Your task to perform on an android device: set the stopwatch Image 0: 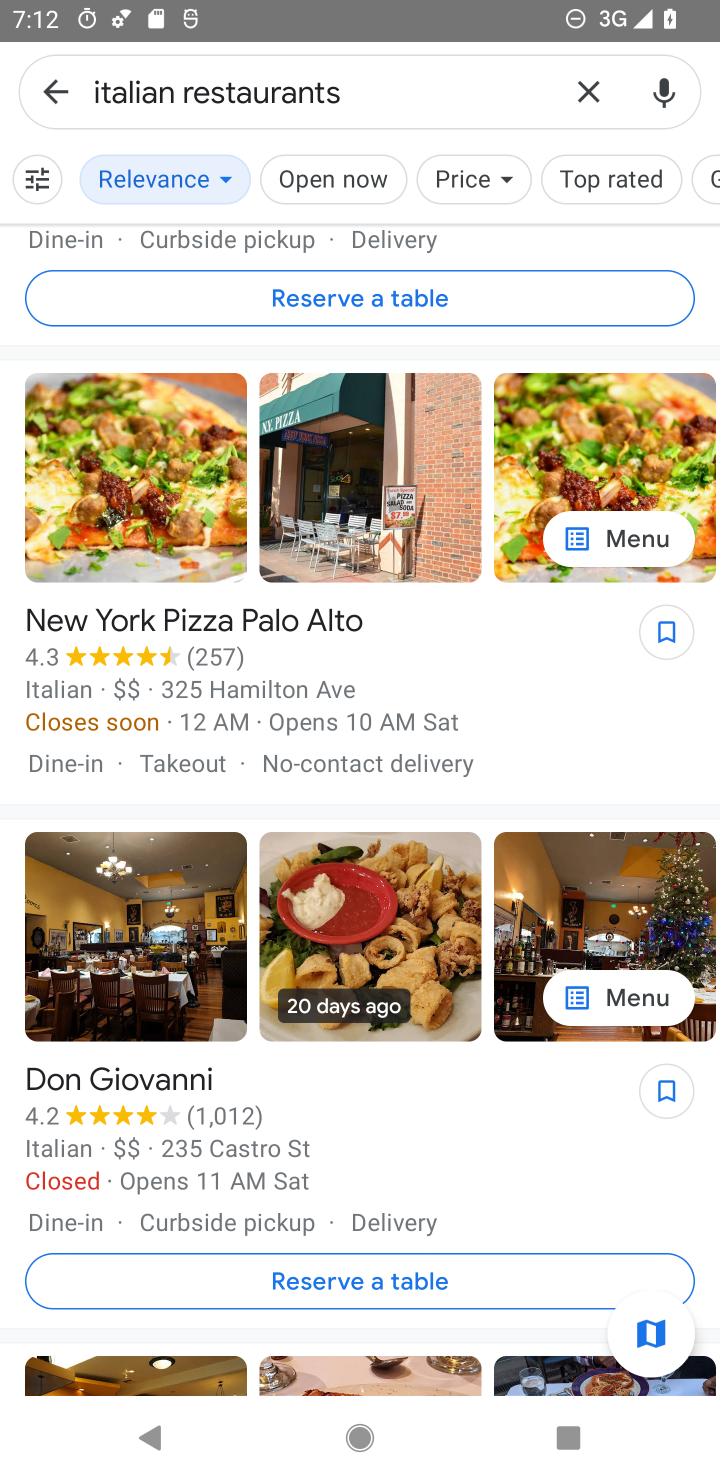
Step 0: drag from (327, 1153) to (482, 279)
Your task to perform on an android device: set the stopwatch Image 1: 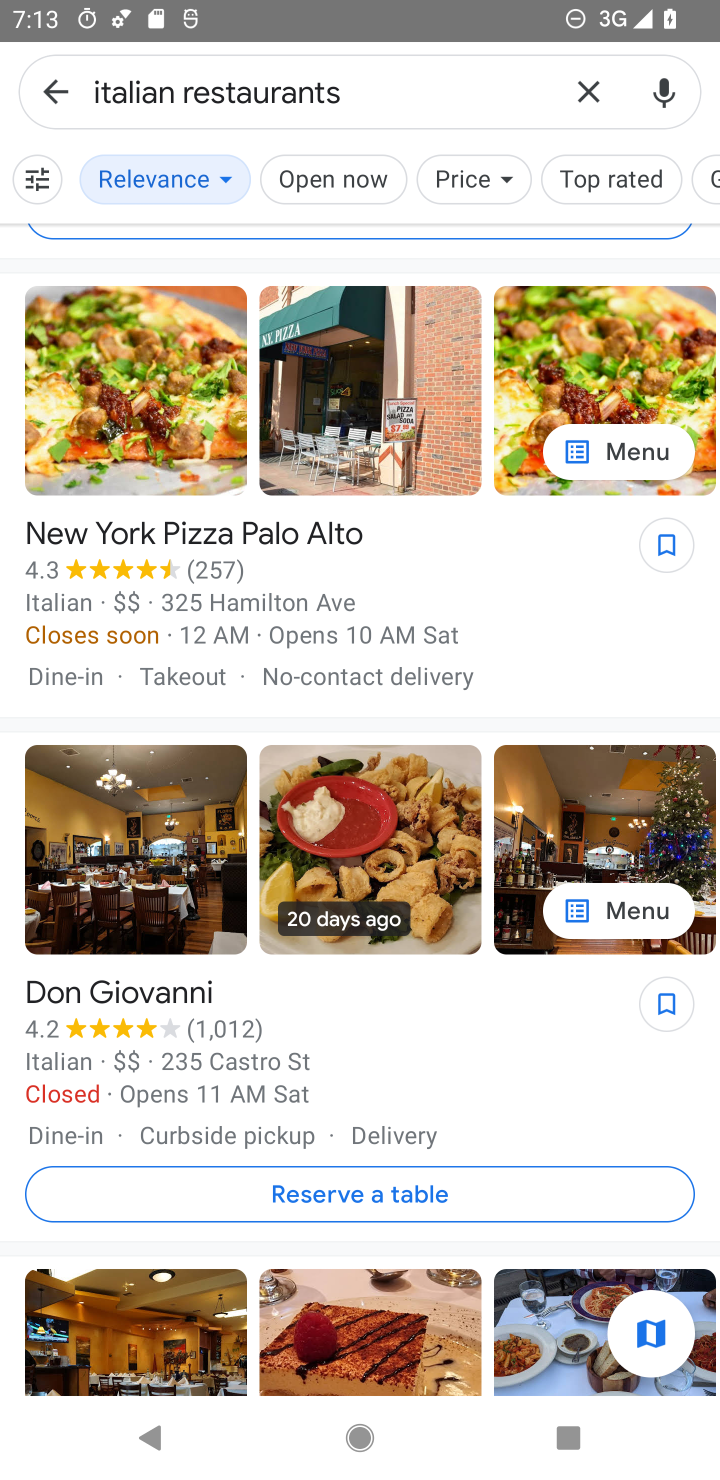
Step 1: drag from (383, 1028) to (363, 1479)
Your task to perform on an android device: set the stopwatch Image 2: 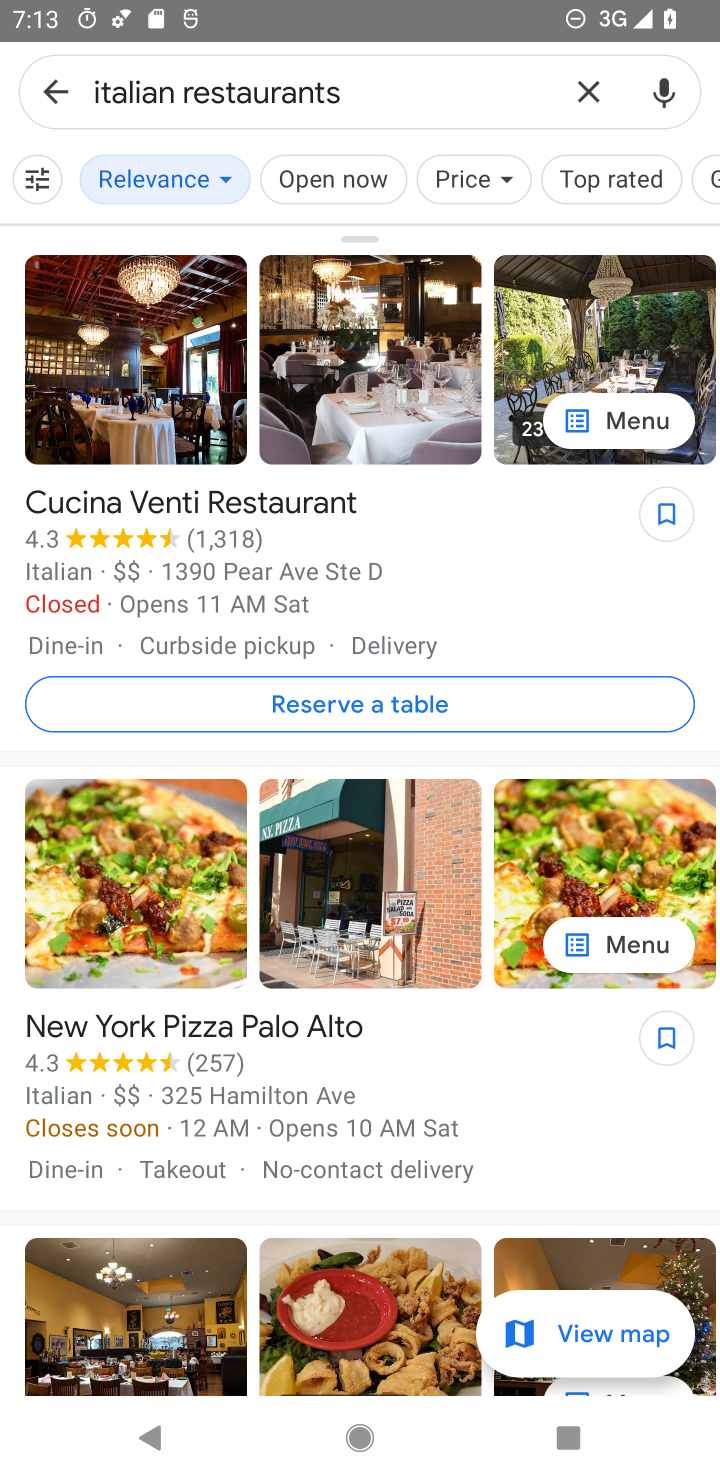
Step 2: press home button
Your task to perform on an android device: set the stopwatch Image 3: 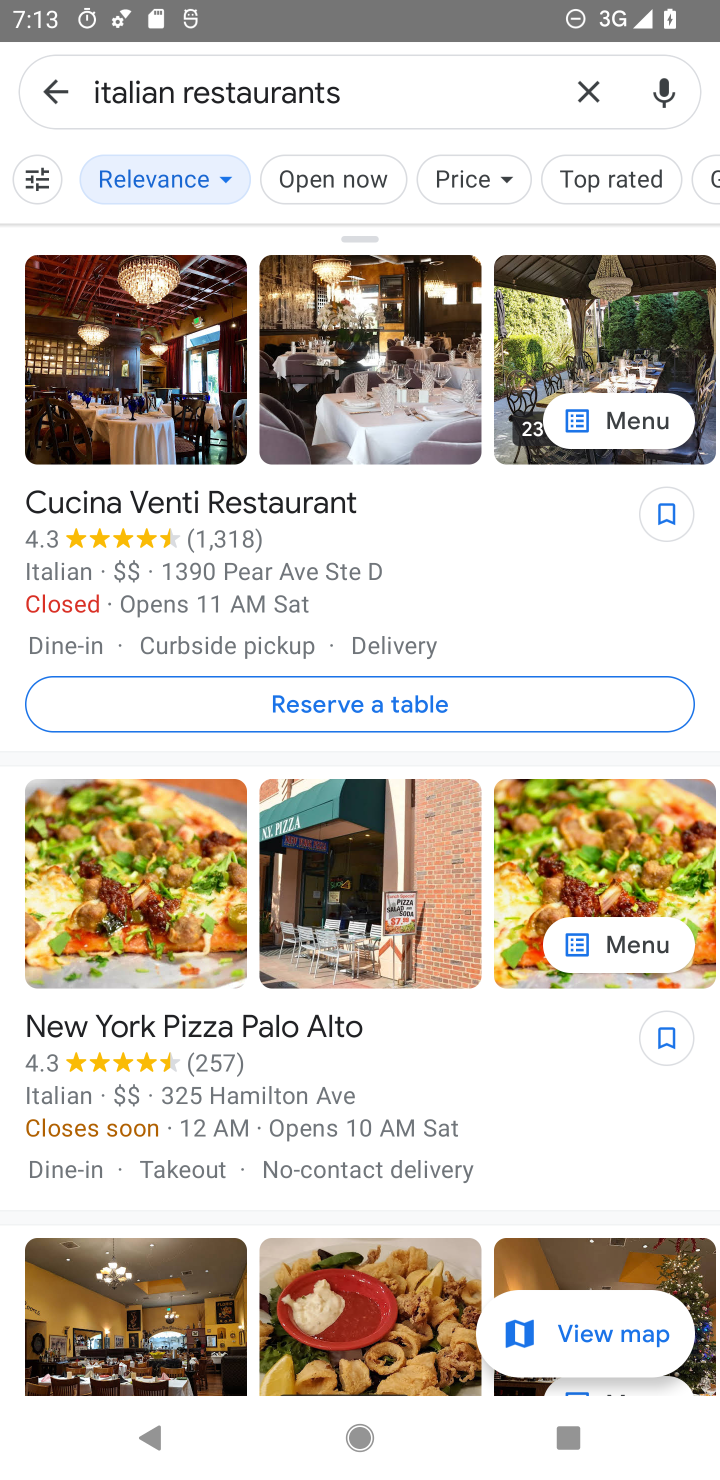
Step 3: drag from (380, 1164) to (394, 136)
Your task to perform on an android device: set the stopwatch Image 4: 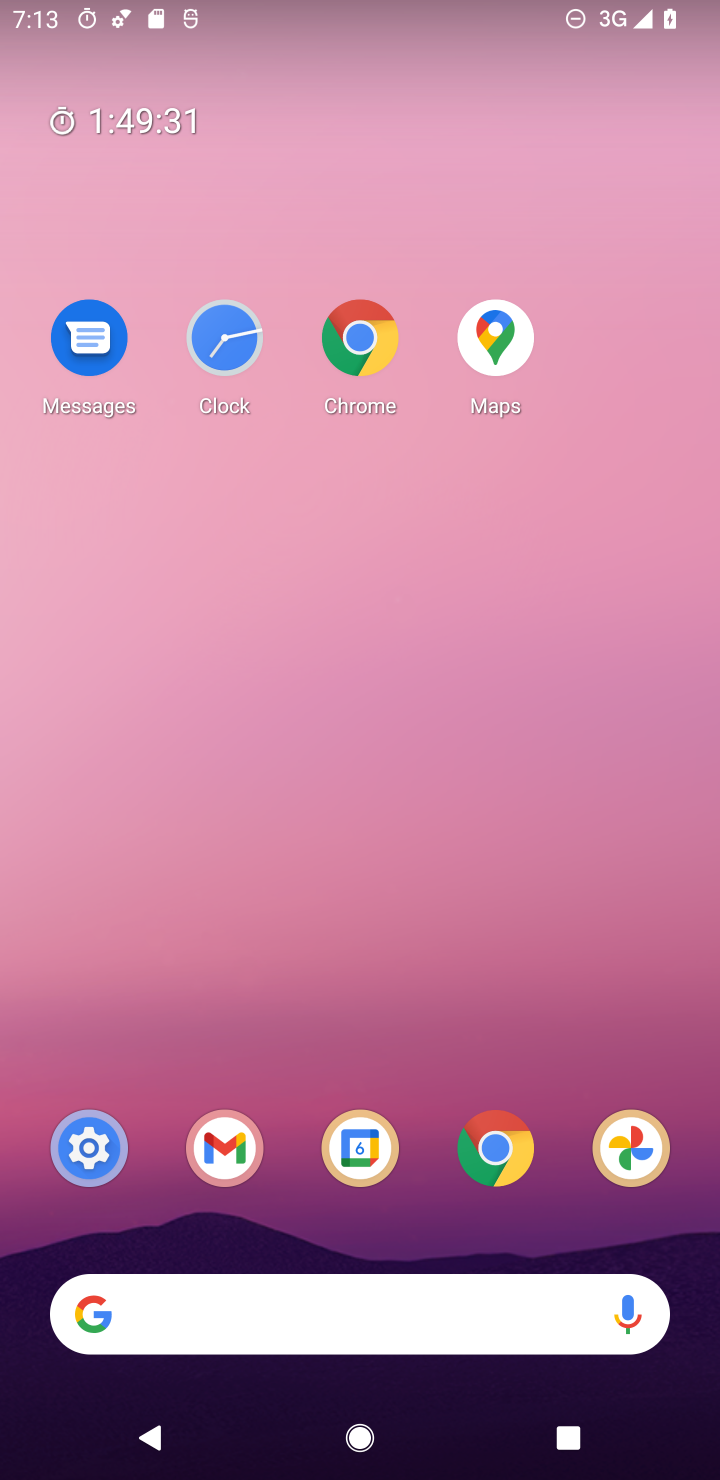
Step 4: drag from (367, 852) to (367, 435)
Your task to perform on an android device: set the stopwatch Image 5: 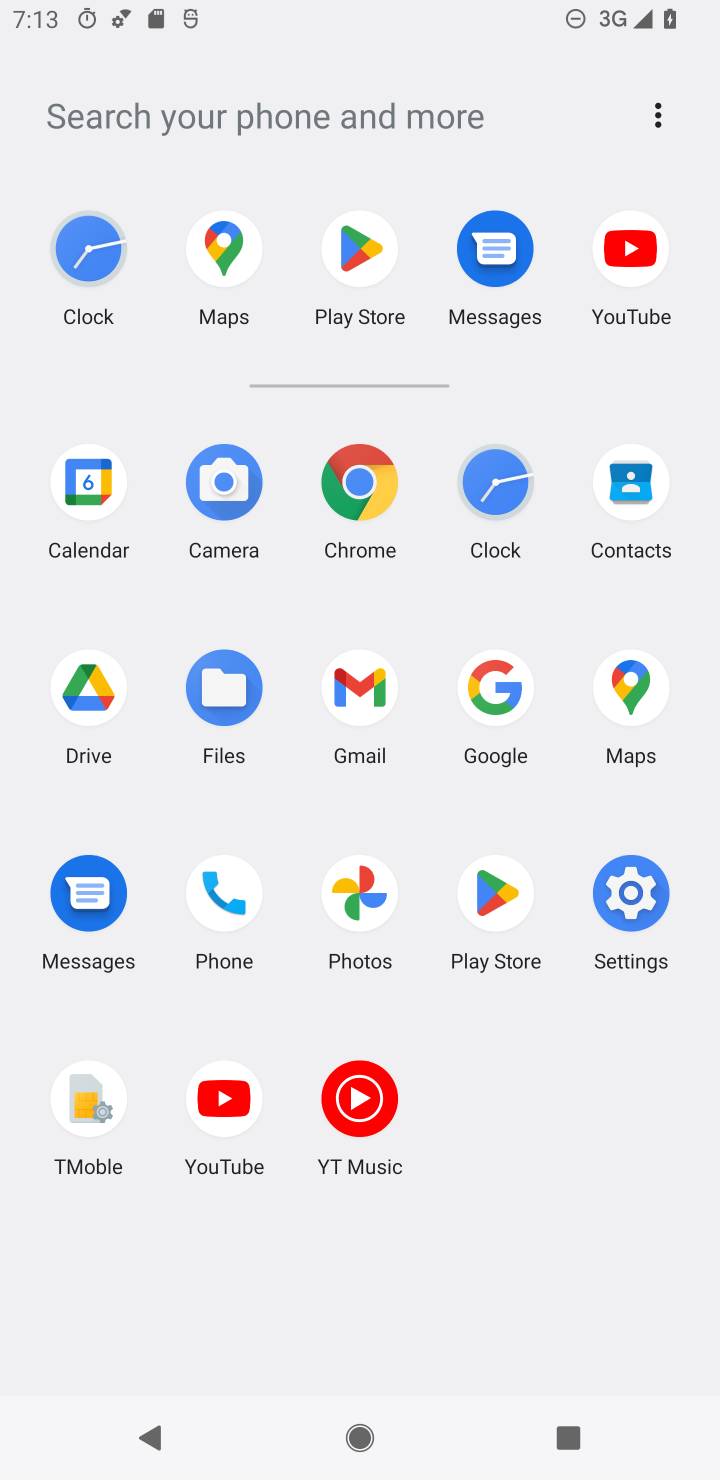
Step 5: click (471, 441)
Your task to perform on an android device: set the stopwatch Image 6: 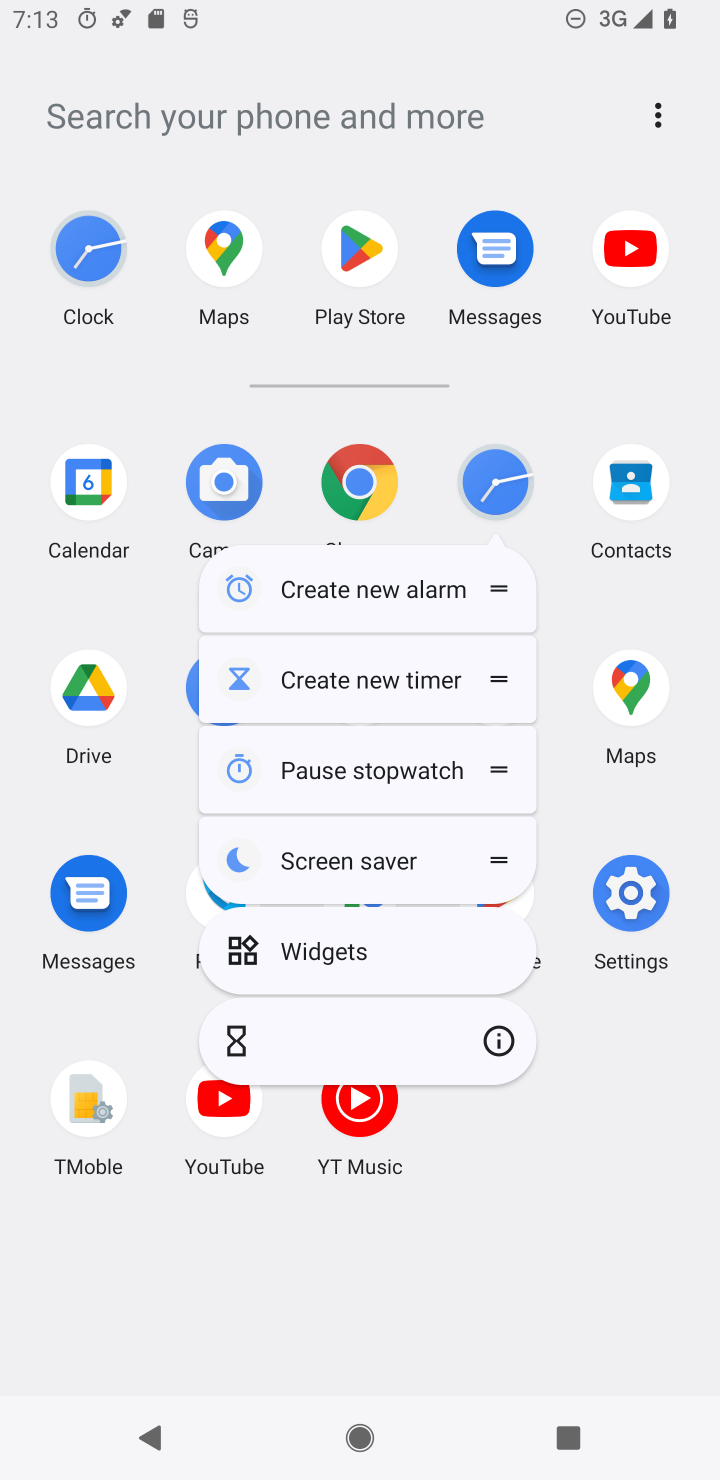
Step 6: click (482, 1042)
Your task to perform on an android device: set the stopwatch Image 7: 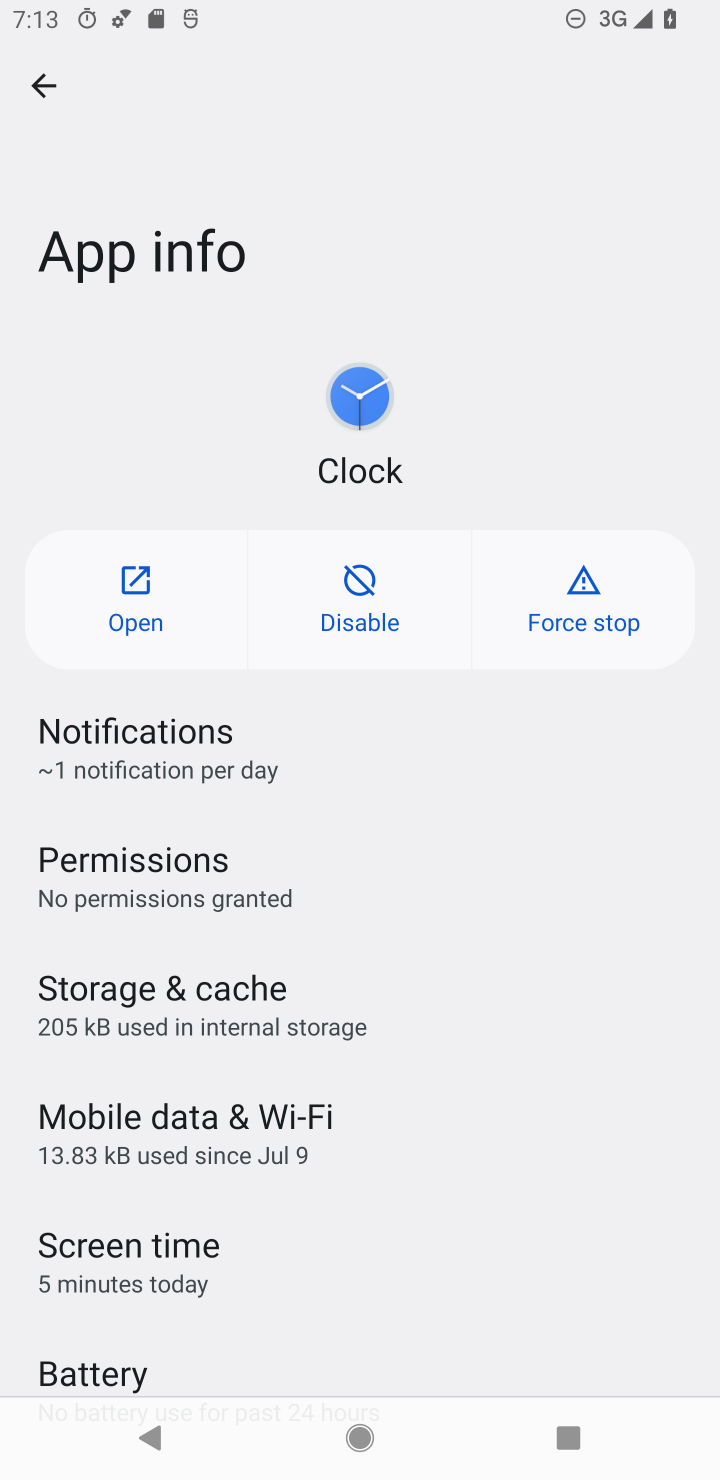
Step 7: click (157, 617)
Your task to perform on an android device: set the stopwatch Image 8: 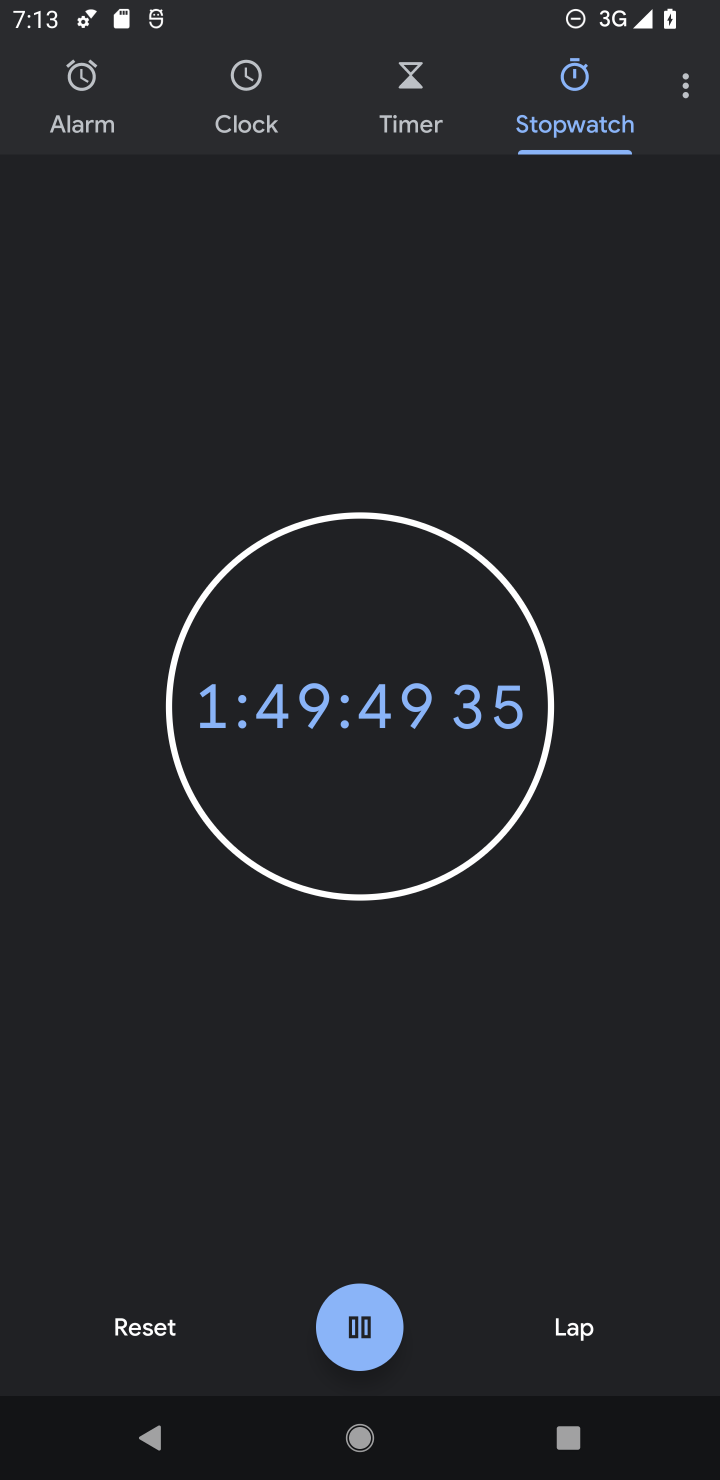
Step 8: click (171, 1310)
Your task to perform on an android device: set the stopwatch Image 9: 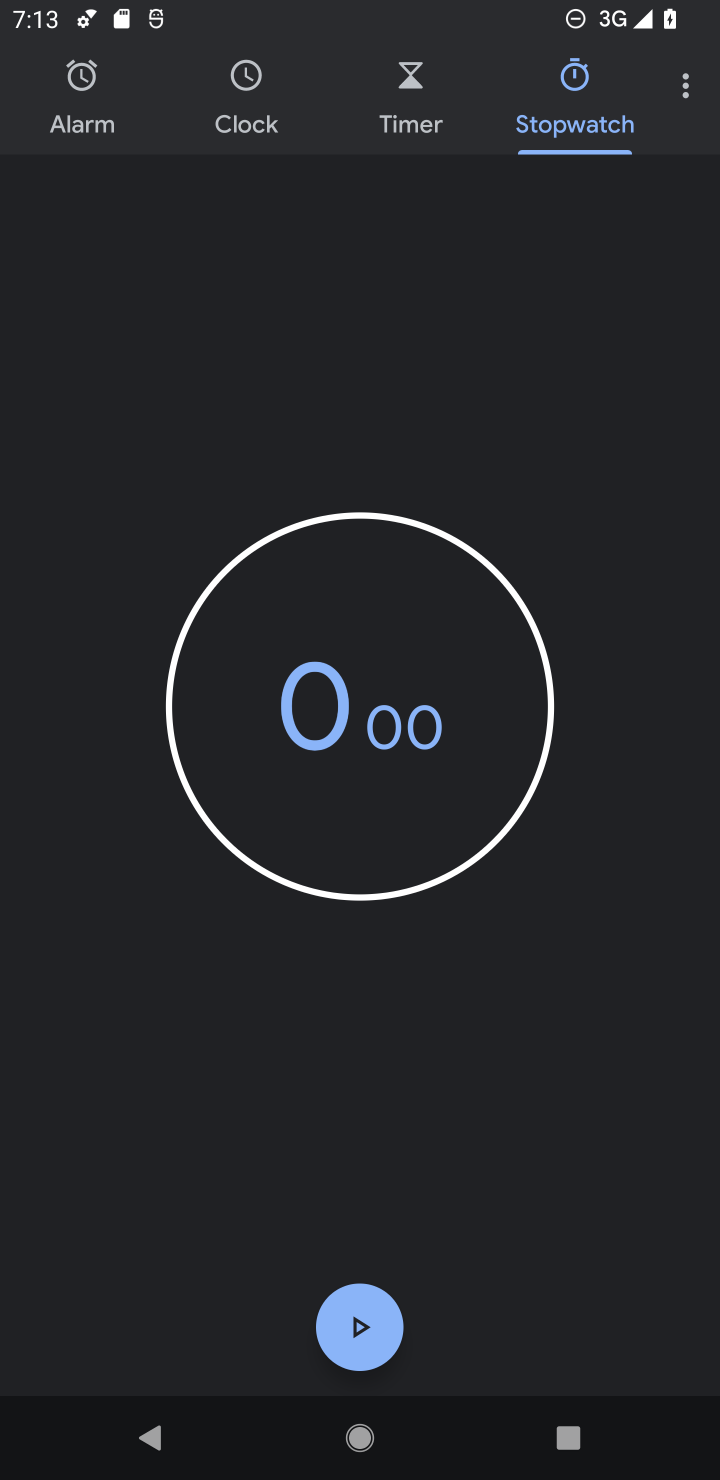
Step 9: click (382, 1320)
Your task to perform on an android device: set the stopwatch Image 10: 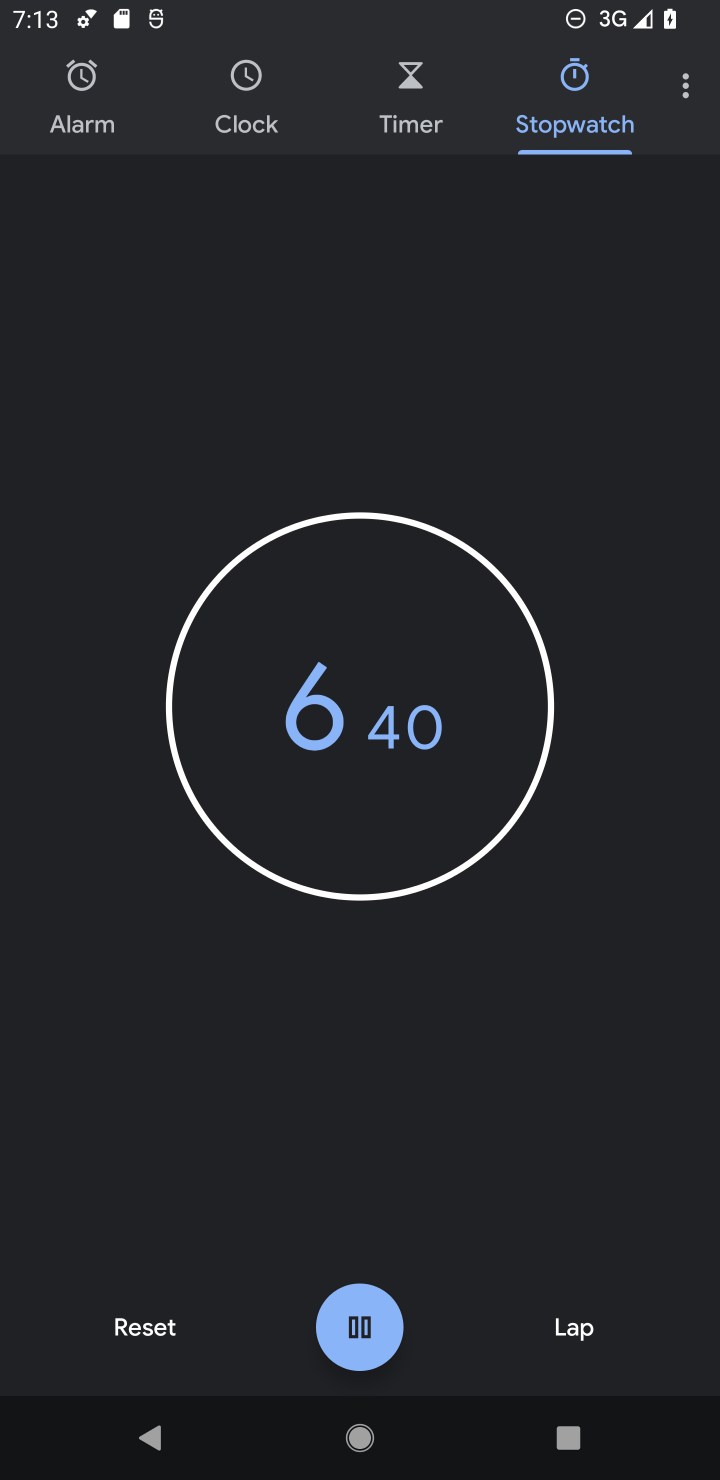
Step 10: task complete